Your task to perform on an android device: Open Youtube and go to the subscriptions tab Image 0: 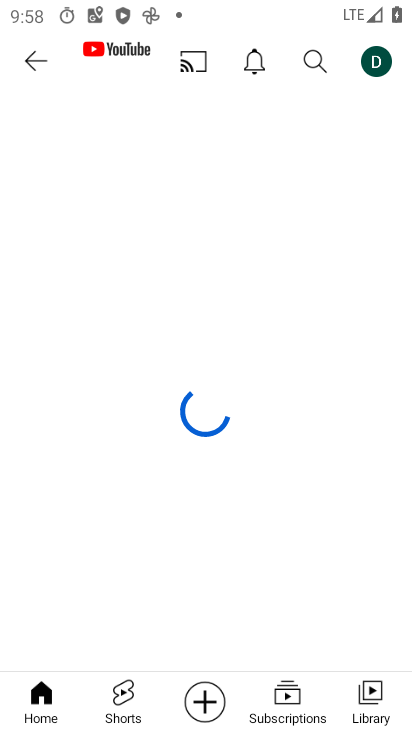
Step 0: drag from (213, 577) to (301, 103)
Your task to perform on an android device: Open Youtube and go to the subscriptions tab Image 1: 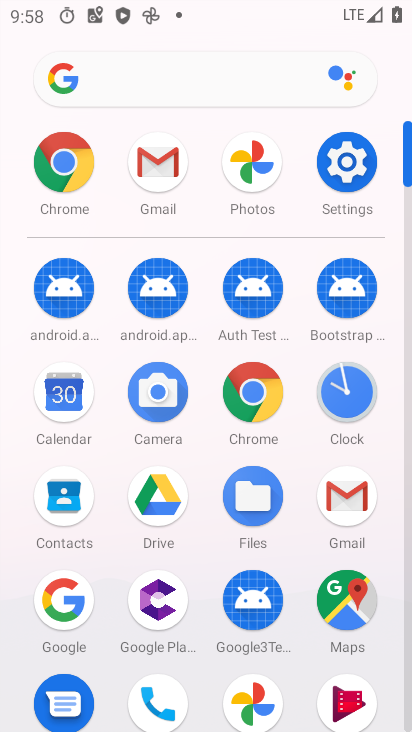
Step 1: drag from (211, 634) to (225, 244)
Your task to perform on an android device: Open Youtube and go to the subscriptions tab Image 2: 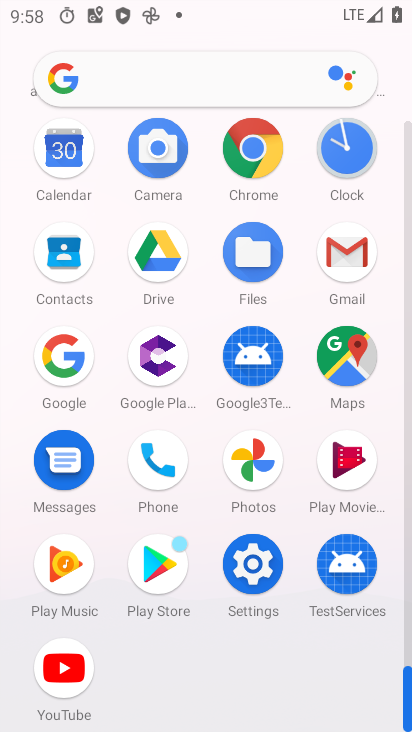
Step 2: click (50, 680)
Your task to perform on an android device: Open Youtube and go to the subscriptions tab Image 3: 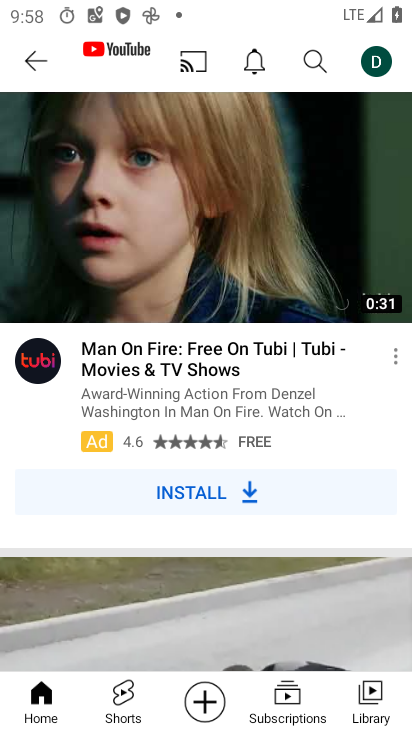
Step 3: drag from (183, 596) to (282, 272)
Your task to perform on an android device: Open Youtube and go to the subscriptions tab Image 4: 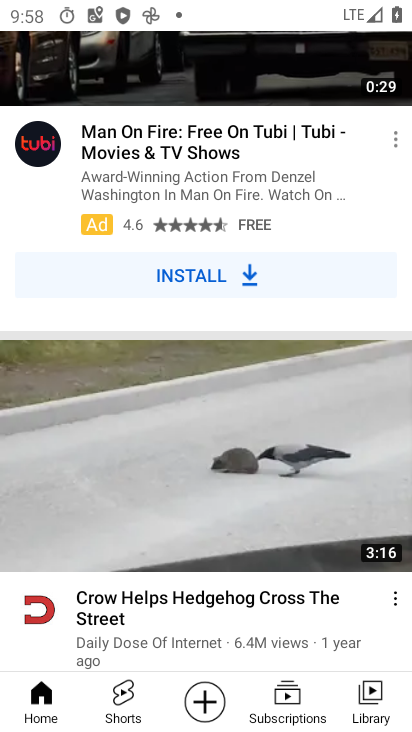
Step 4: click (295, 704)
Your task to perform on an android device: Open Youtube and go to the subscriptions tab Image 5: 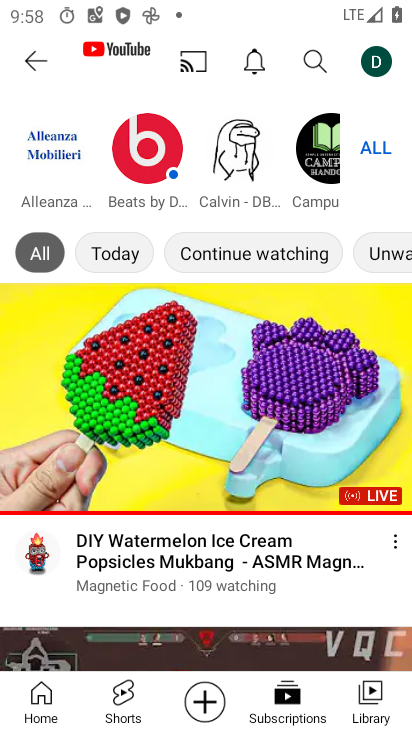
Step 5: task complete